Your task to perform on an android device: Go to Google maps Image 0: 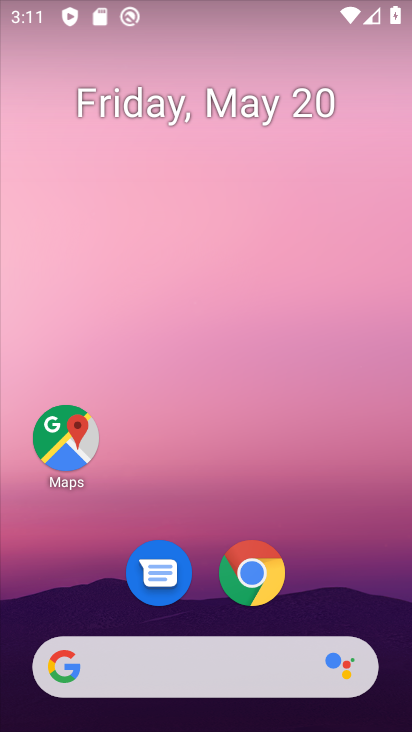
Step 0: drag from (215, 634) to (166, 42)
Your task to perform on an android device: Go to Google maps Image 1: 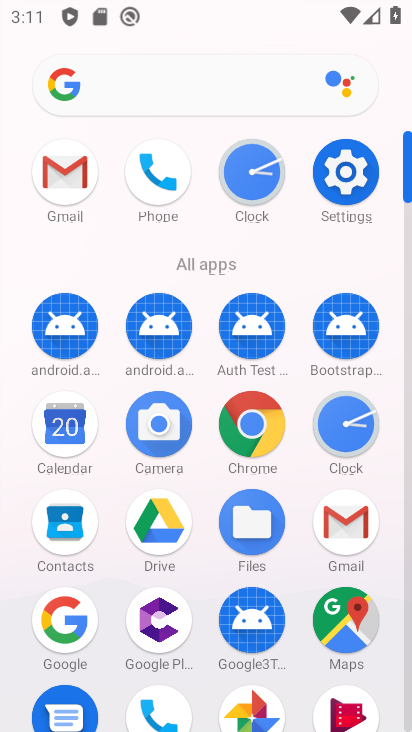
Step 1: click (335, 628)
Your task to perform on an android device: Go to Google maps Image 2: 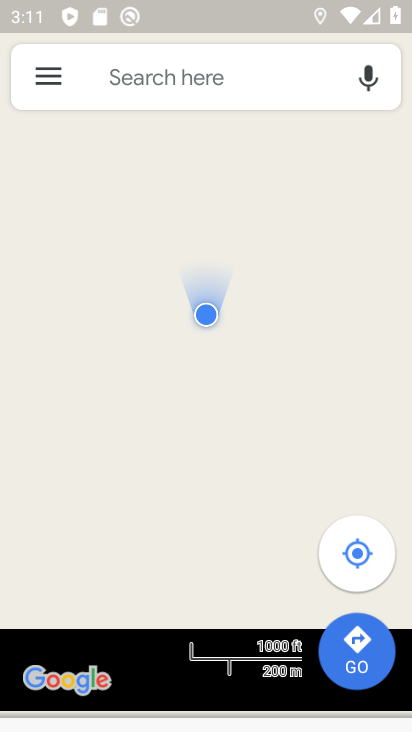
Step 2: task complete